Your task to perform on an android device: Turn off the flashlight Image 0: 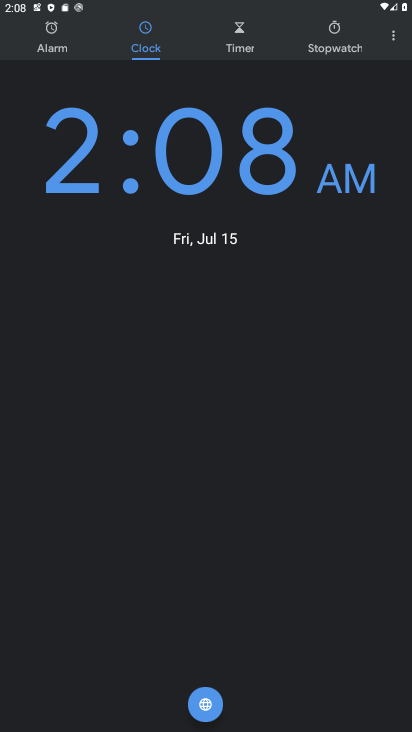
Step 0: press home button
Your task to perform on an android device: Turn off the flashlight Image 1: 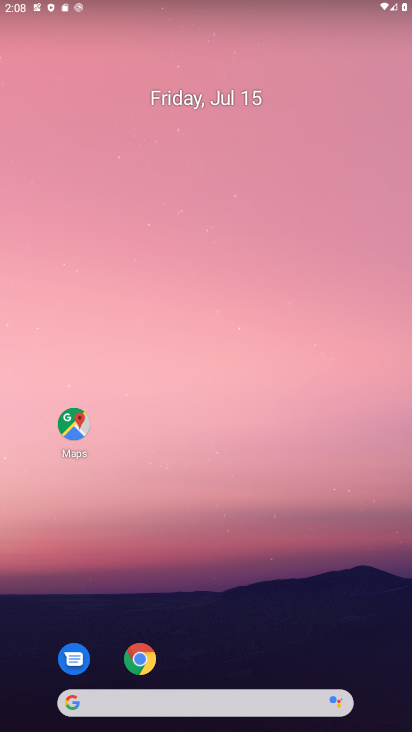
Step 1: drag from (226, 650) to (243, 153)
Your task to perform on an android device: Turn off the flashlight Image 2: 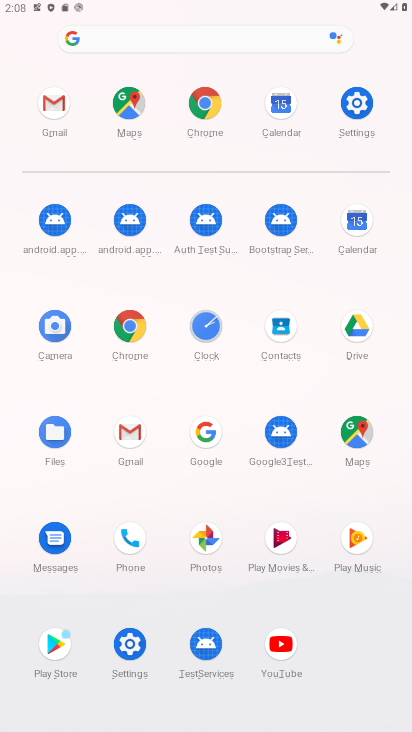
Step 2: click (365, 98)
Your task to perform on an android device: Turn off the flashlight Image 3: 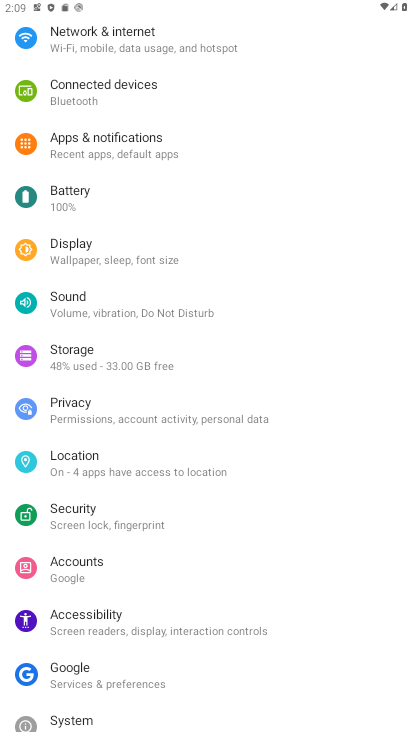
Step 3: task complete